Your task to perform on an android device: turn pop-ups on in chrome Image 0: 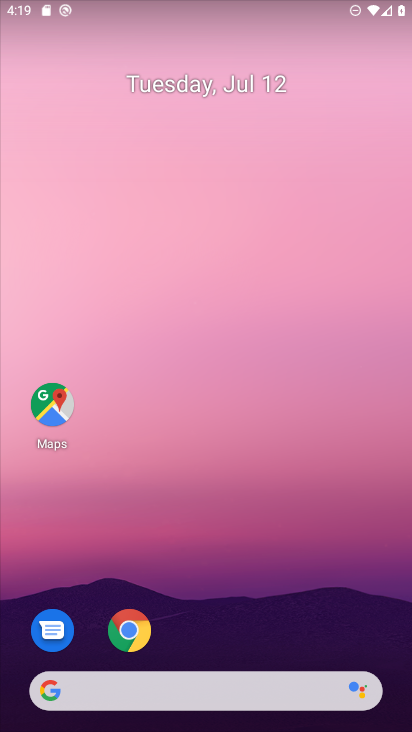
Step 0: click (127, 630)
Your task to perform on an android device: turn pop-ups on in chrome Image 1: 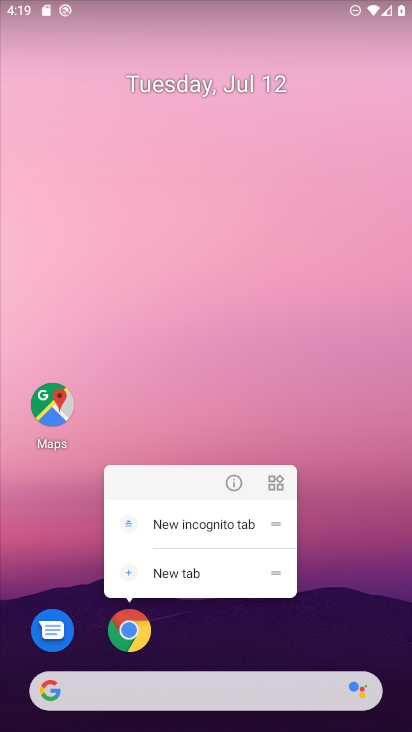
Step 1: click (128, 630)
Your task to perform on an android device: turn pop-ups on in chrome Image 2: 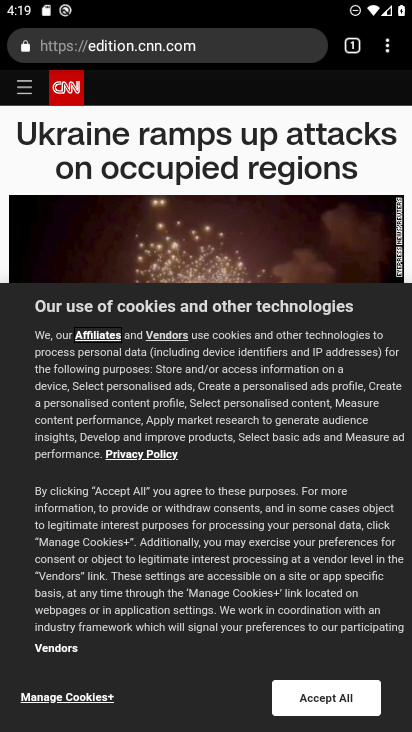
Step 2: drag from (391, 49) to (294, 508)
Your task to perform on an android device: turn pop-ups on in chrome Image 3: 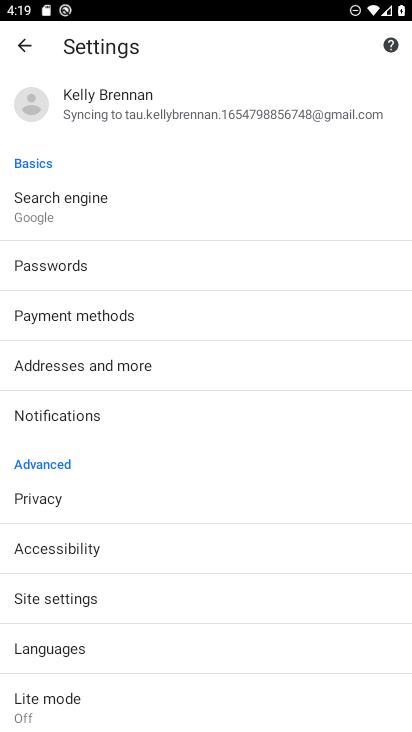
Step 3: click (114, 614)
Your task to perform on an android device: turn pop-ups on in chrome Image 4: 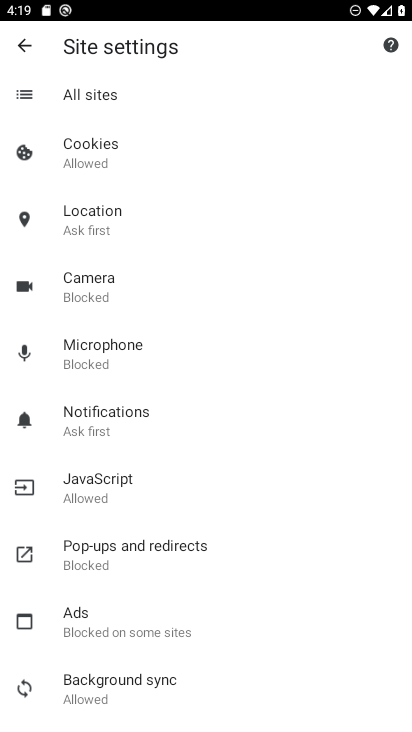
Step 4: click (160, 555)
Your task to perform on an android device: turn pop-ups on in chrome Image 5: 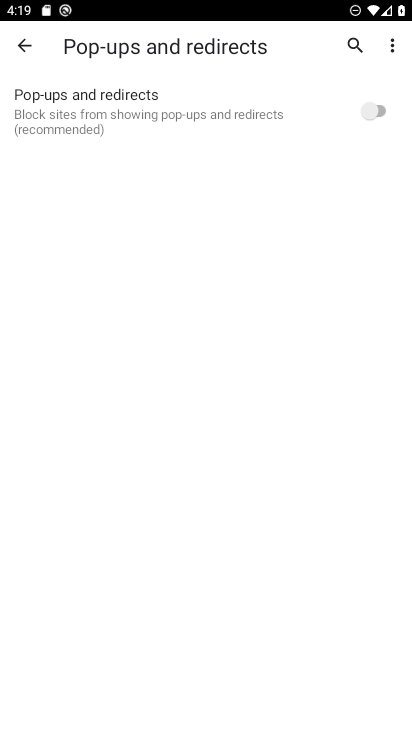
Step 5: click (387, 108)
Your task to perform on an android device: turn pop-ups on in chrome Image 6: 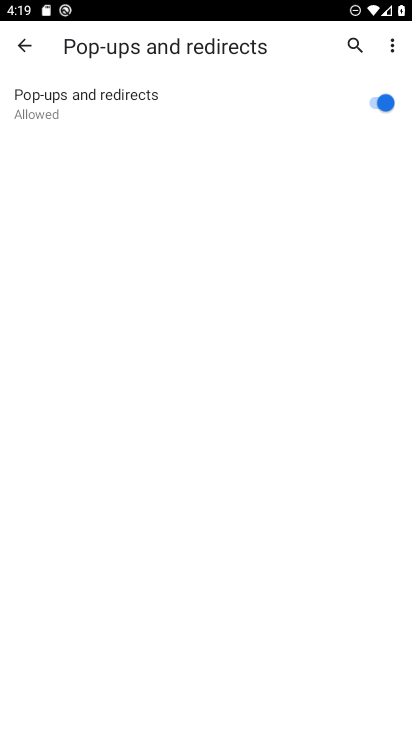
Step 6: task complete